Your task to perform on an android device: toggle improve location accuracy Image 0: 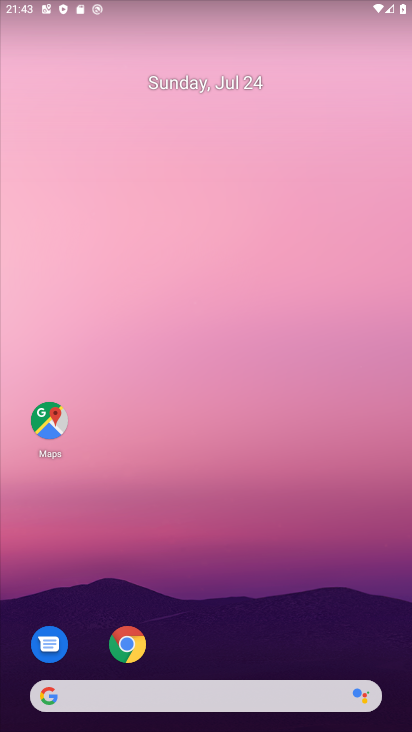
Step 0: drag from (364, 635) to (288, 133)
Your task to perform on an android device: toggle improve location accuracy Image 1: 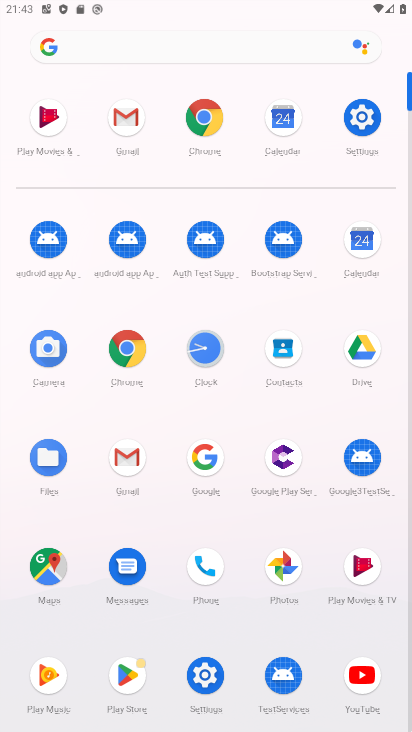
Step 1: click (205, 674)
Your task to perform on an android device: toggle improve location accuracy Image 2: 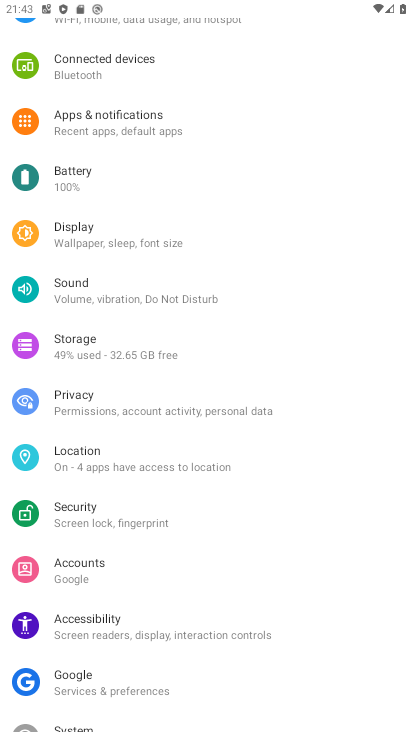
Step 2: click (105, 457)
Your task to perform on an android device: toggle improve location accuracy Image 3: 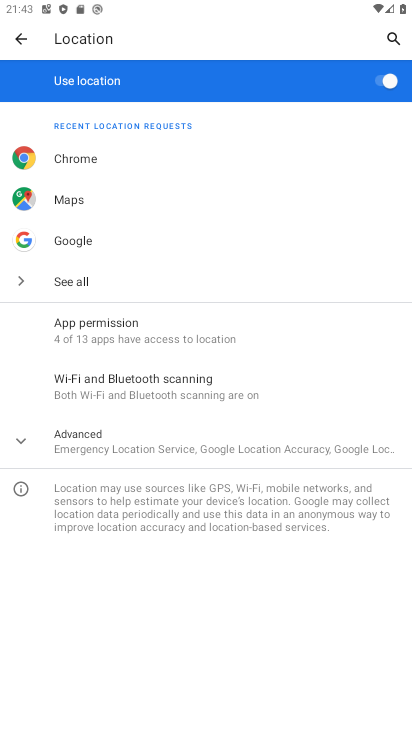
Step 3: click (27, 439)
Your task to perform on an android device: toggle improve location accuracy Image 4: 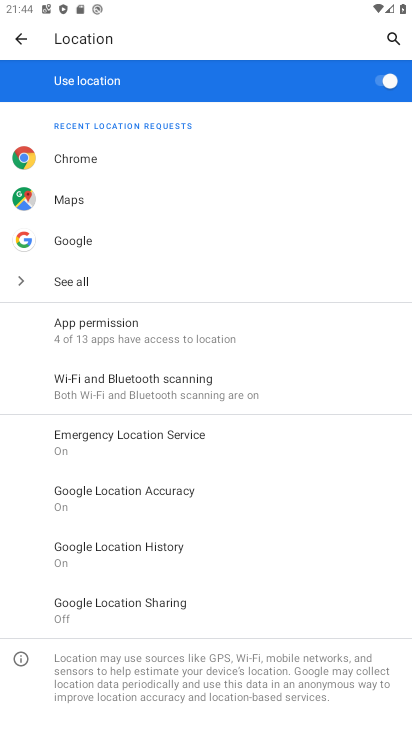
Step 4: click (105, 484)
Your task to perform on an android device: toggle improve location accuracy Image 5: 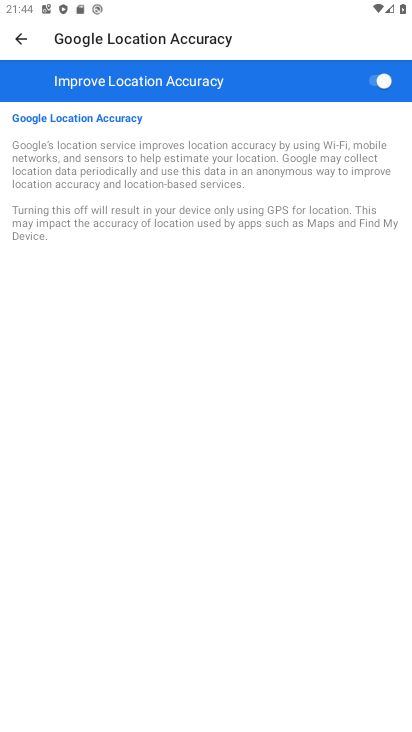
Step 5: click (373, 81)
Your task to perform on an android device: toggle improve location accuracy Image 6: 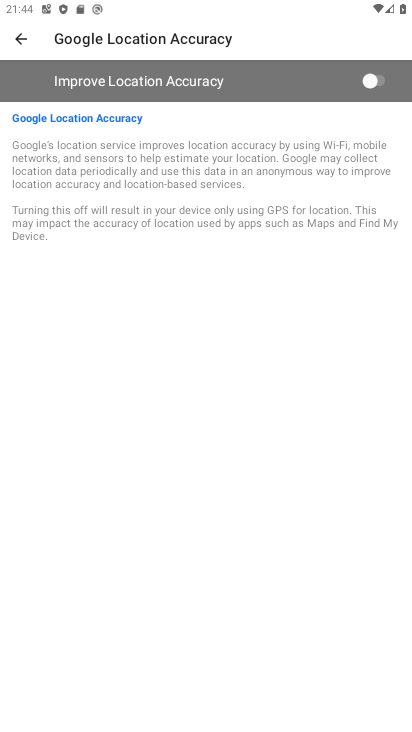
Step 6: task complete